Your task to perform on an android device: change the clock style Image 0: 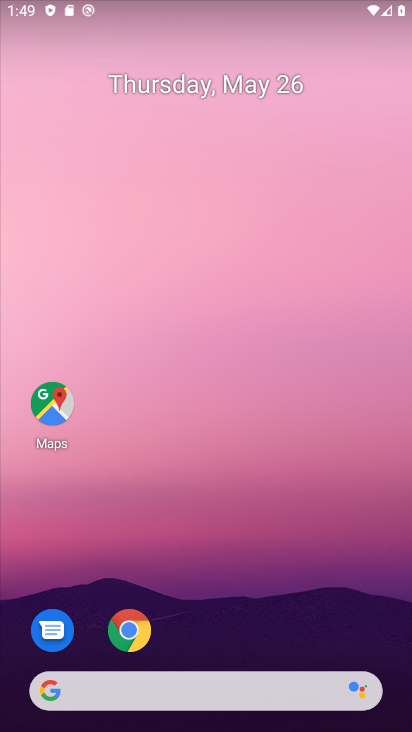
Step 0: drag from (316, 460) to (359, 16)
Your task to perform on an android device: change the clock style Image 1: 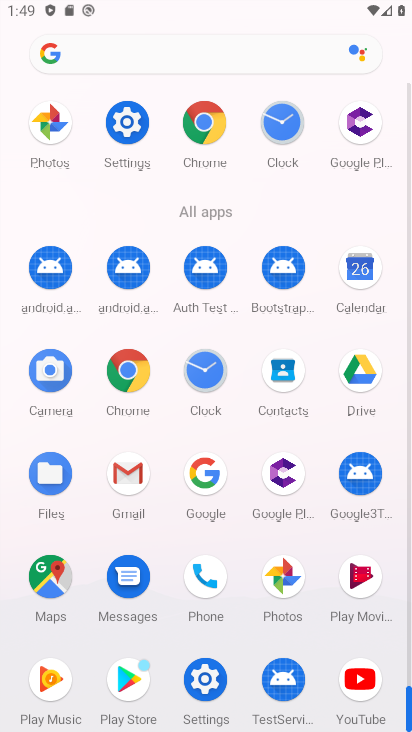
Step 1: click (296, 134)
Your task to perform on an android device: change the clock style Image 2: 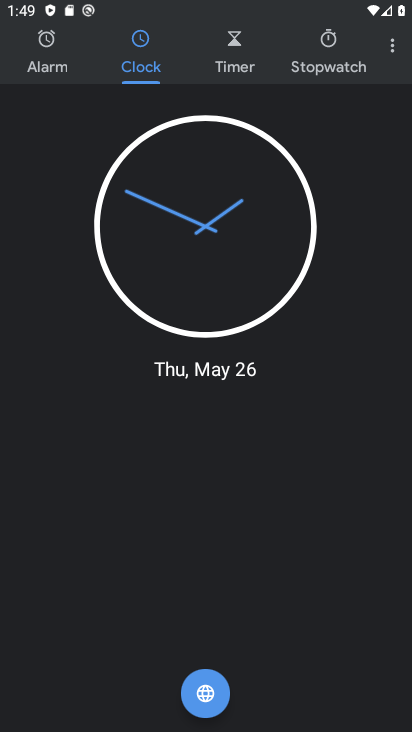
Step 2: click (386, 50)
Your task to perform on an android device: change the clock style Image 3: 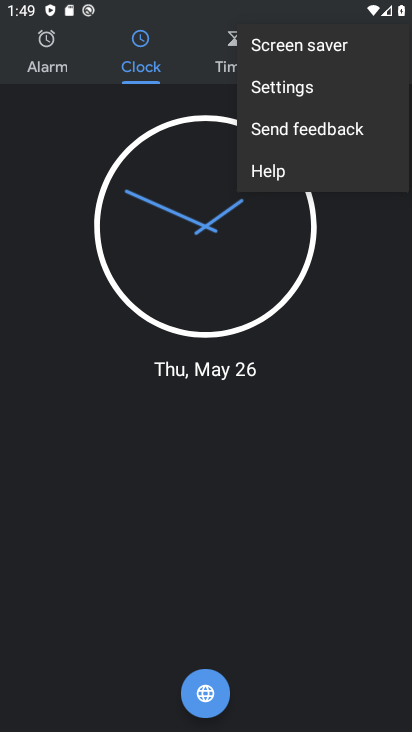
Step 3: click (312, 95)
Your task to perform on an android device: change the clock style Image 4: 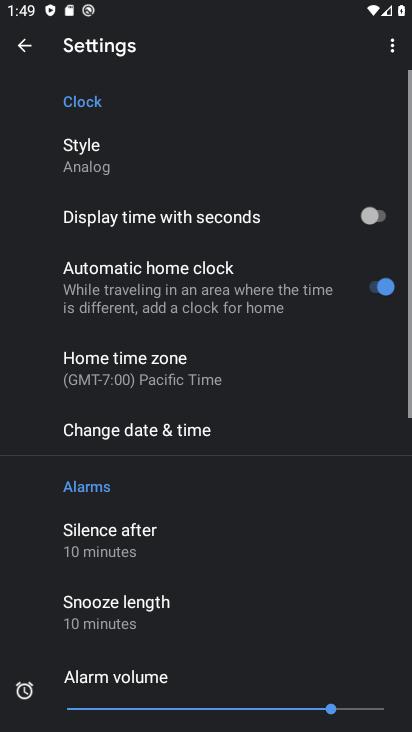
Step 4: click (222, 163)
Your task to perform on an android device: change the clock style Image 5: 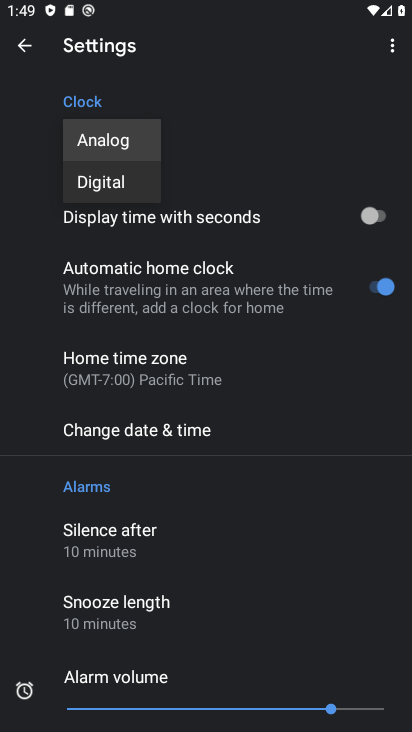
Step 5: click (110, 178)
Your task to perform on an android device: change the clock style Image 6: 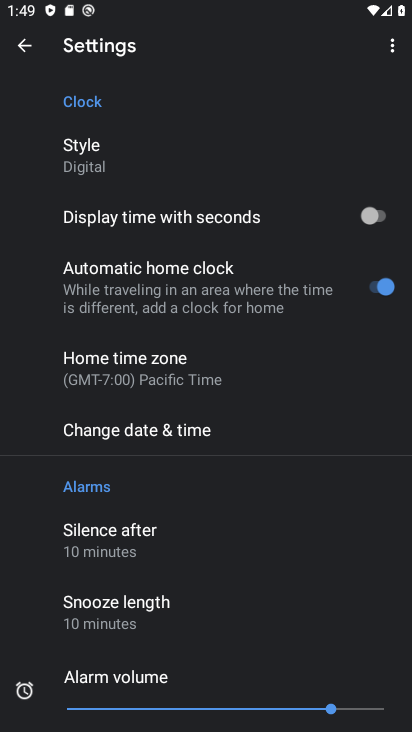
Step 6: task complete